Your task to perform on an android device: check battery use Image 0: 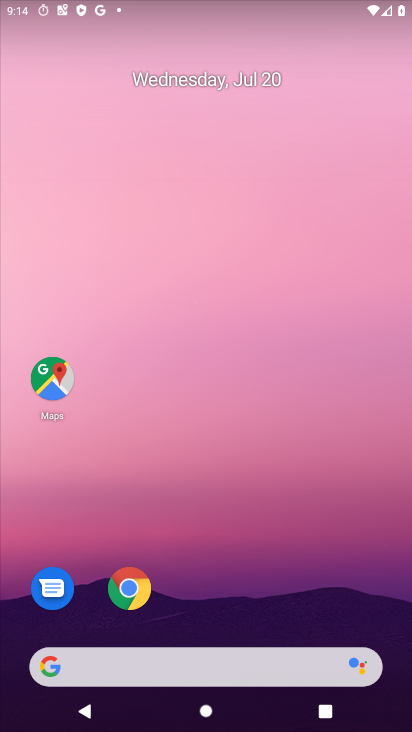
Step 0: drag from (293, 620) to (305, 358)
Your task to perform on an android device: check battery use Image 1: 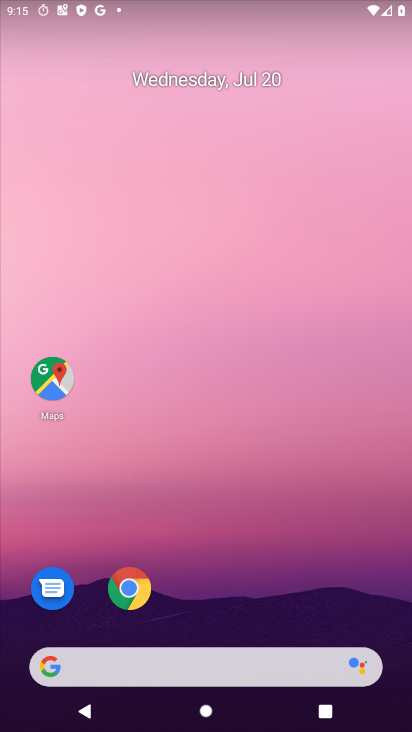
Step 1: drag from (294, 656) to (324, 168)
Your task to perform on an android device: check battery use Image 2: 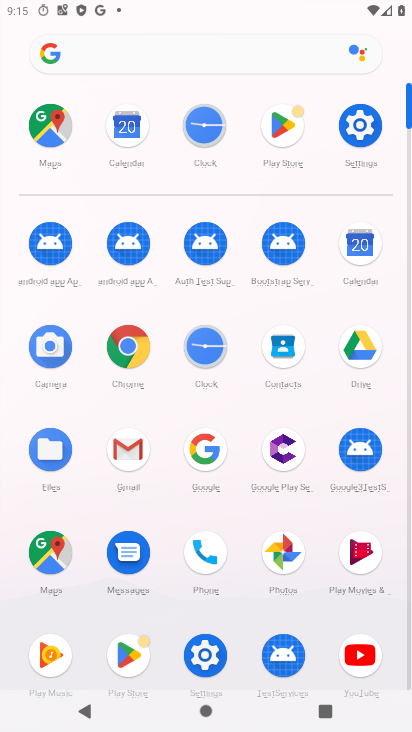
Step 2: click (365, 132)
Your task to perform on an android device: check battery use Image 3: 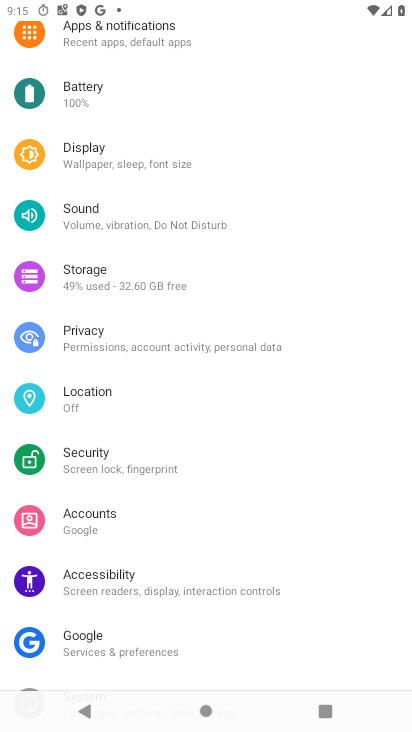
Step 3: click (96, 104)
Your task to perform on an android device: check battery use Image 4: 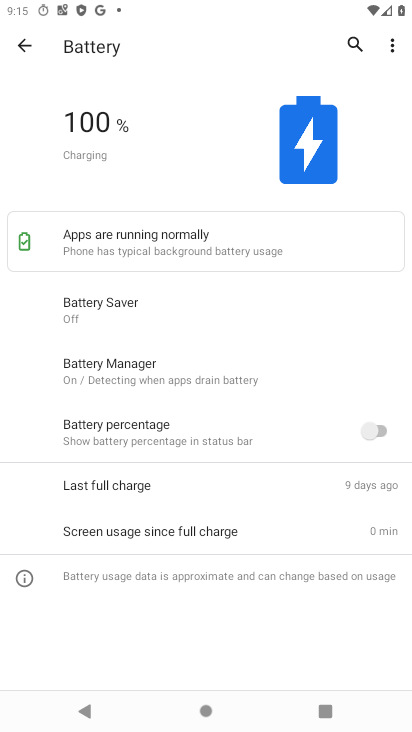
Step 4: task complete